Your task to perform on an android device: What's the weather going to be tomorrow? Image 0: 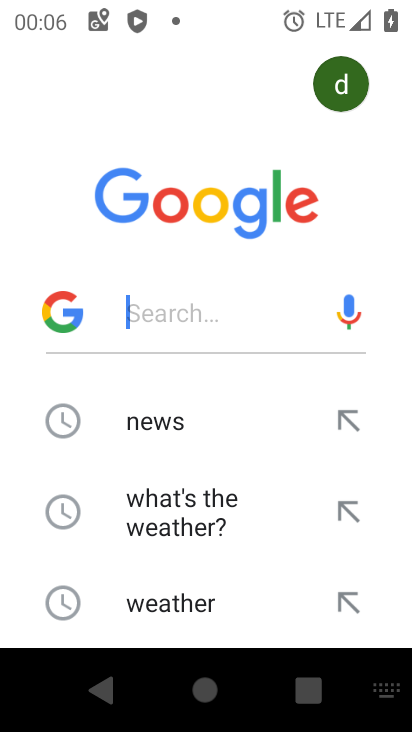
Step 0: press home button
Your task to perform on an android device: What's the weather going to be tomorrow? Image 1: 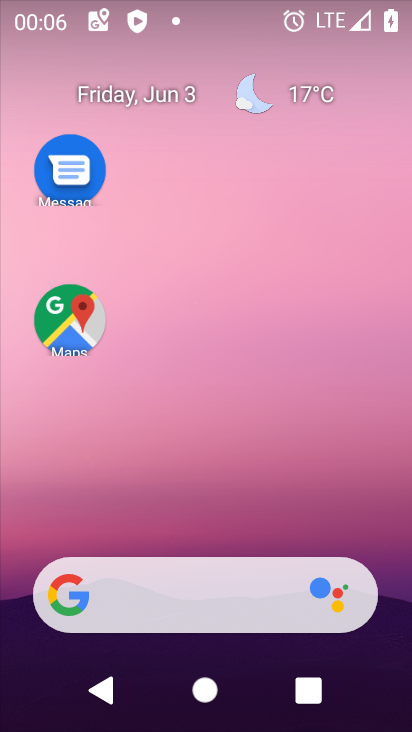
Step 1: drag from (283, 532) to (315, 3)
Your task to perform on an android device: What's the weather going to be tomorrow? Image 2: 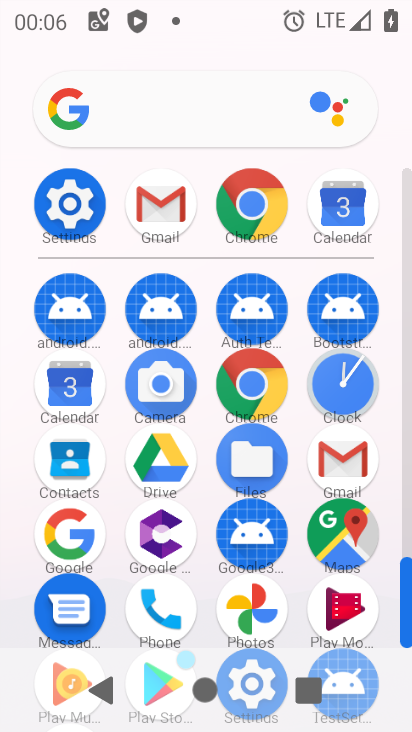
Step 2: click (224, 212)
Your task to perform on an android device: What's the weather going to be tomorrow? Image 3: 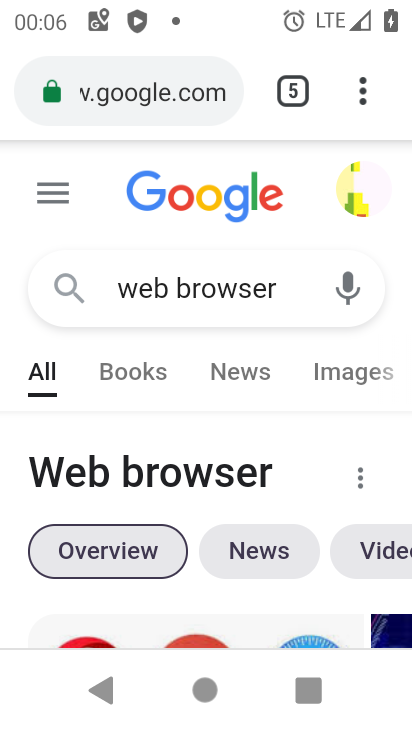
Step 3: click (176, 73)
Your task to perform on an android device: What's the weather going to be tomorrow? Image 4: 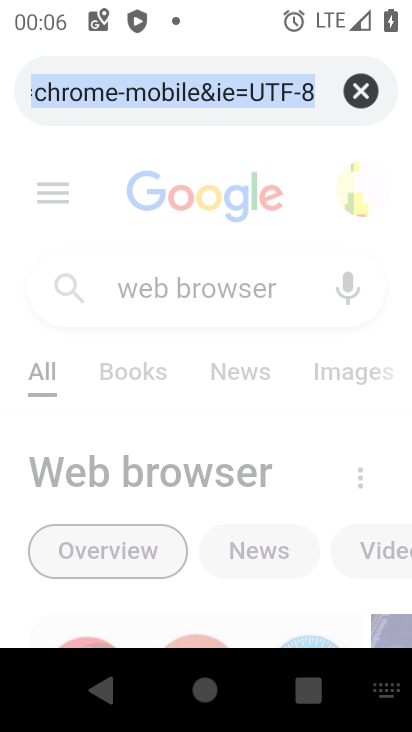
Step 4: click (359, 88)
Your task to perform on an android device: What's the weather going to be tomorrow? Image 5: 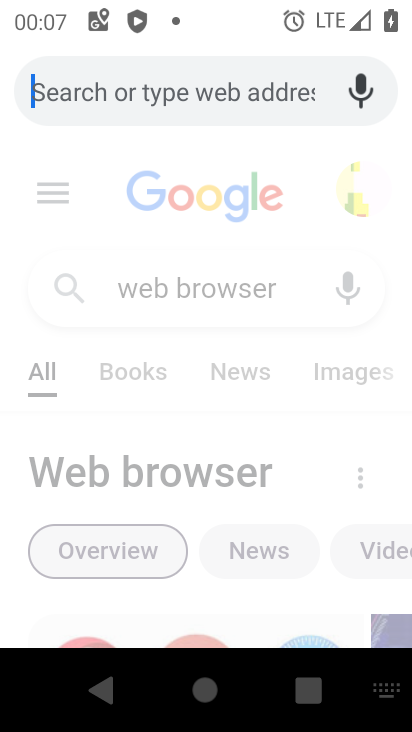
Step 5: type "What's the weather going to be tomorrow?"
Your task to perform on an android device: What's the weather going to be tomorrow? Image 6: 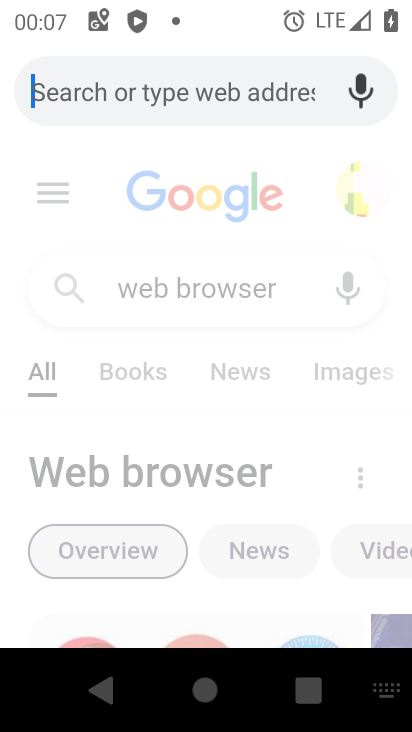
Step 6: click (185, 156)
Your task to perform on an android device: What's the weather going to be tomorrow? Image 7: 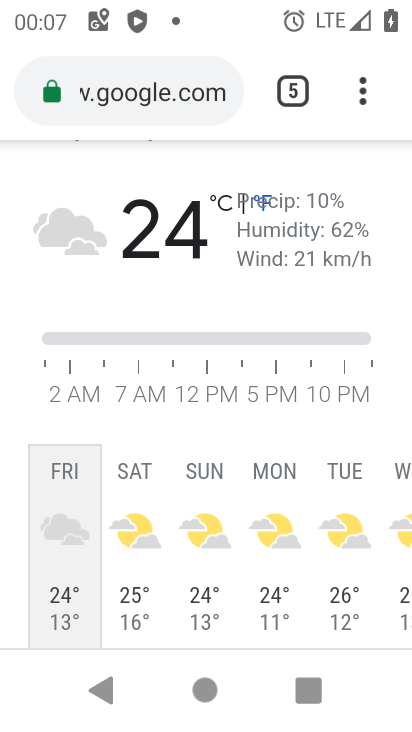
Step 7: task complete